Your task to perform on an android device: Open Chrome and go to the settings page Image 0: 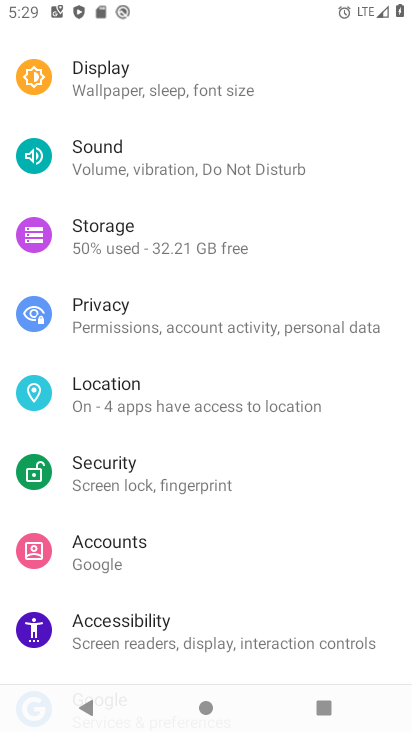
Step 0: press home button
Your task to perform on an android device: Open Chrome and go to the settings page Image 1: 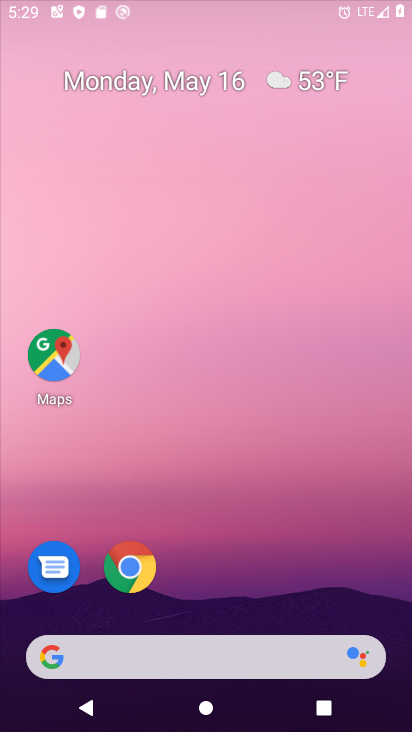
Step 1: drag from (274, 687) to (304, 23)
Your task to perform on an android device: Open Chrome and go to the settings page Image 2: 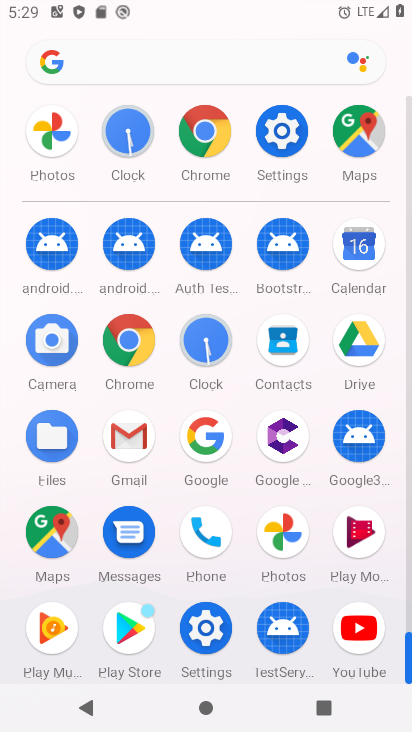
Step 2: click (125, 354)
Your task to perform on an android device: Open Chrome and go to the settings page Image 3: 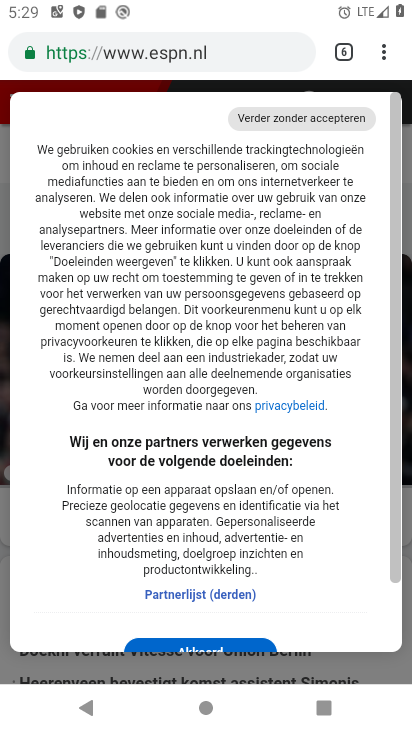
Step 3: click (376, 58)
Your task to perform on an android device: Open Chrome and go to the settings page Image 4: 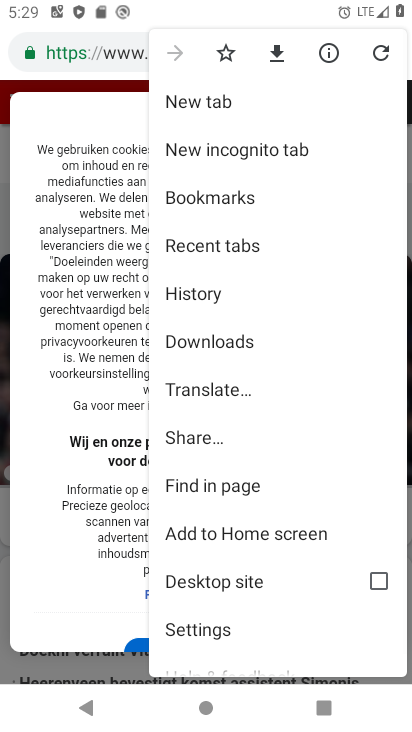
Step 4: click (280, 628)
Your task to perform on an android device: Open Chrome and go to the settings page Image 5: 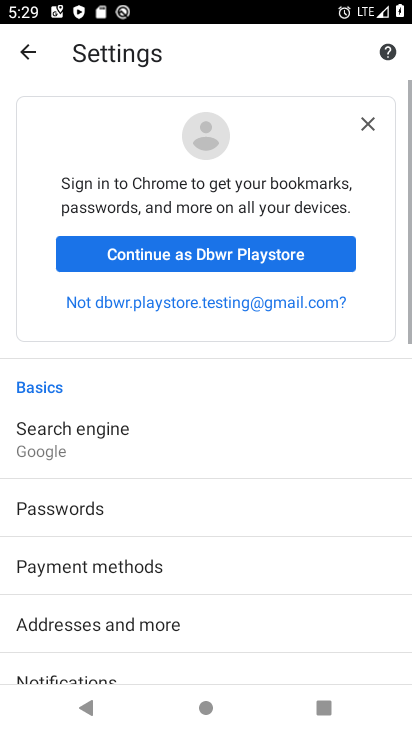
Step 5: task complete